Your task to perform on an android device: Add "dell xps" to the cart on newegg Image 0: 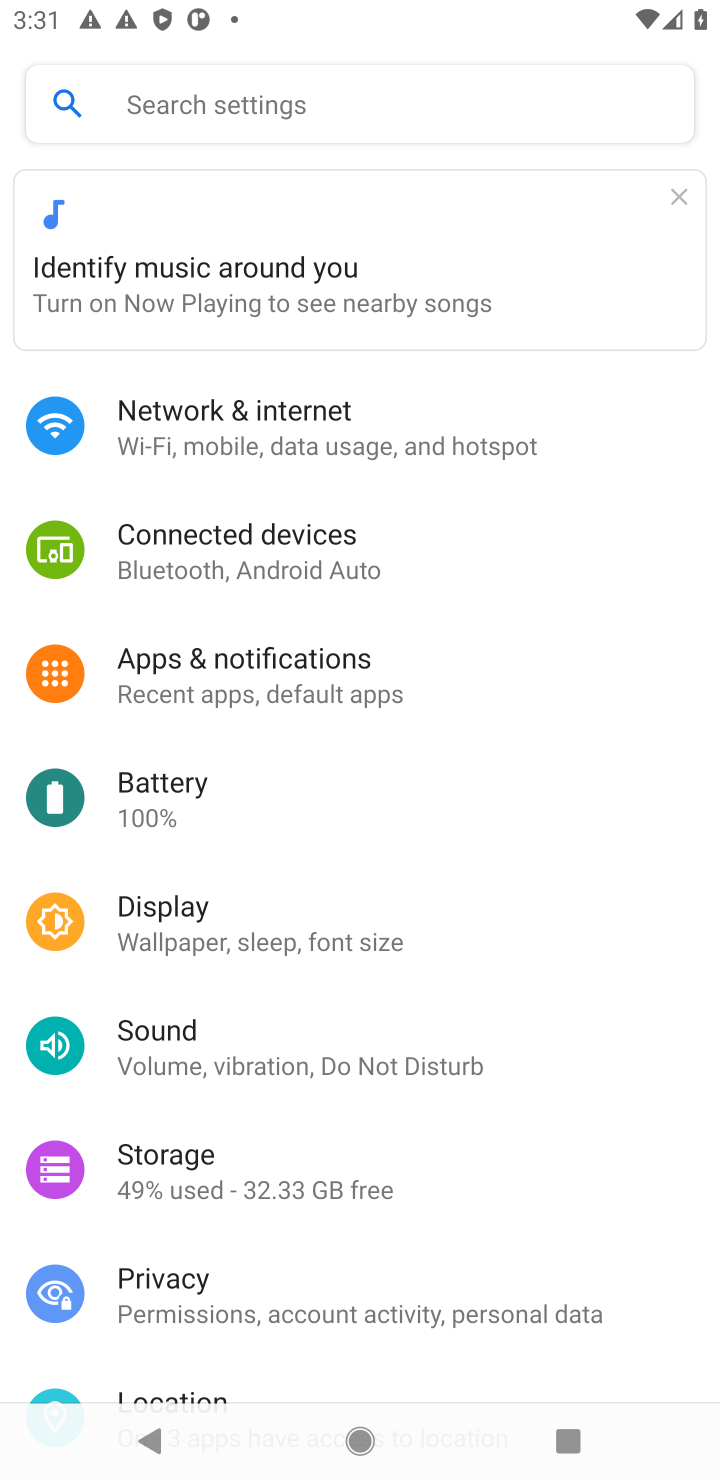
Step 0: press home button
Your task to perform on an android device: Add "dell xps" to the cart on newegg Image 1: 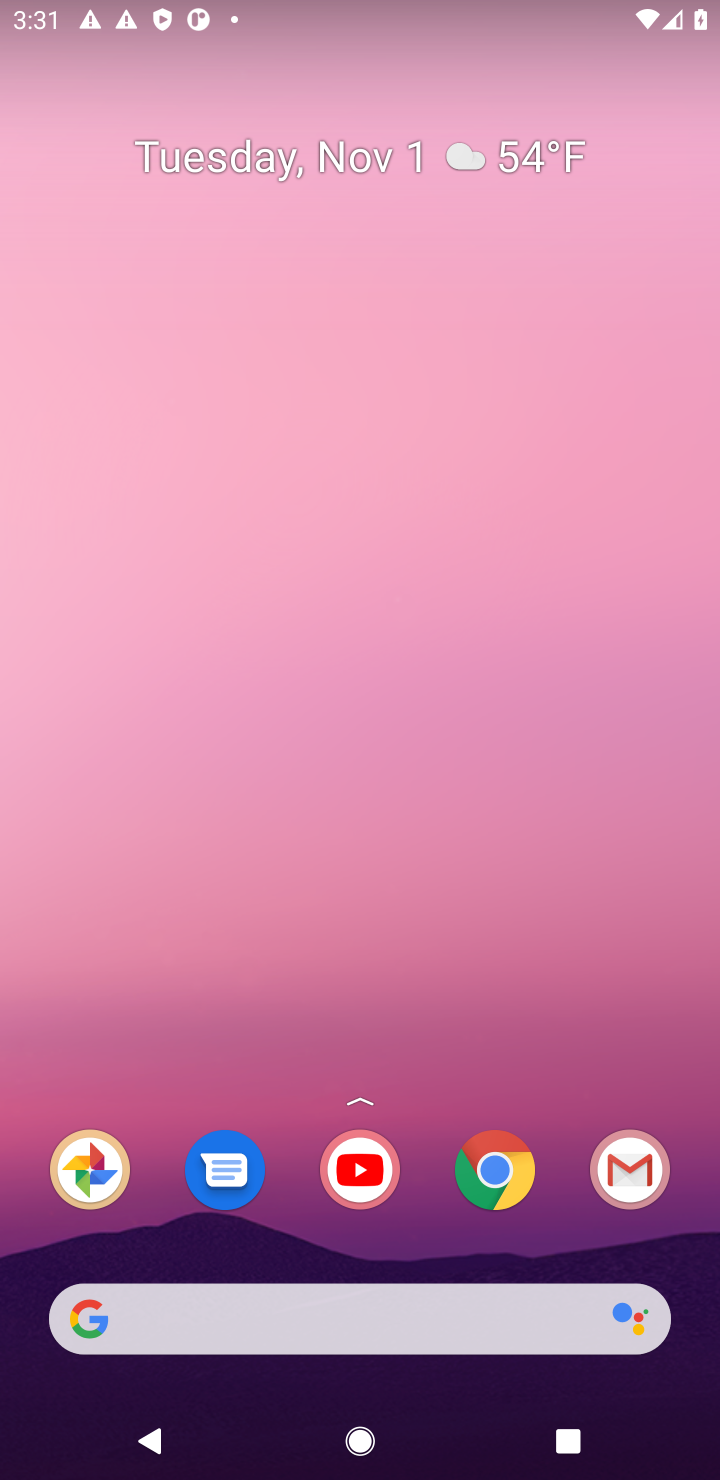
Step 1: drag from (473, 1418) to (420, 8)
Your task to perform on an android device: Add "dell xps" to the cart on newegg Image 2: 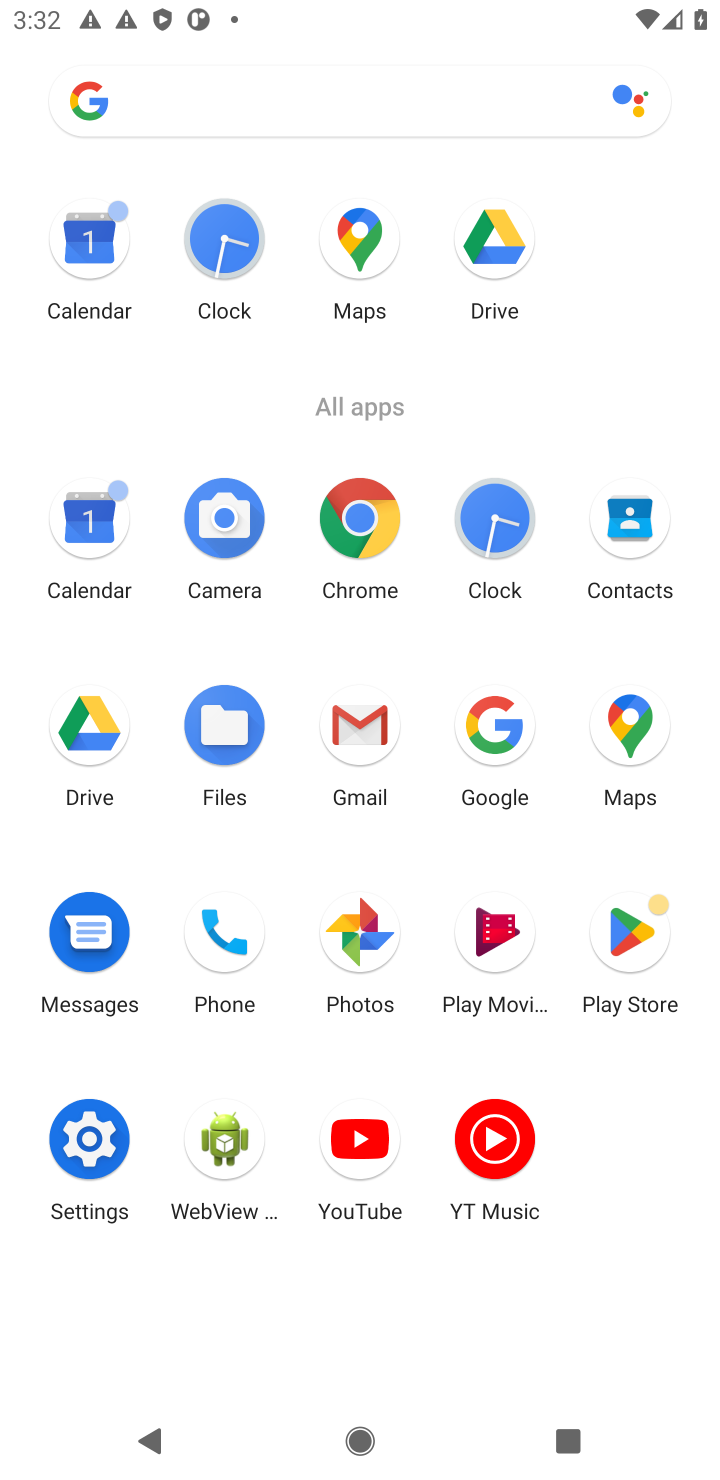
Step 2: click (364, 519)
Your task to perform on an android device: Add "dell xps" to the cart on newegg Image 3: 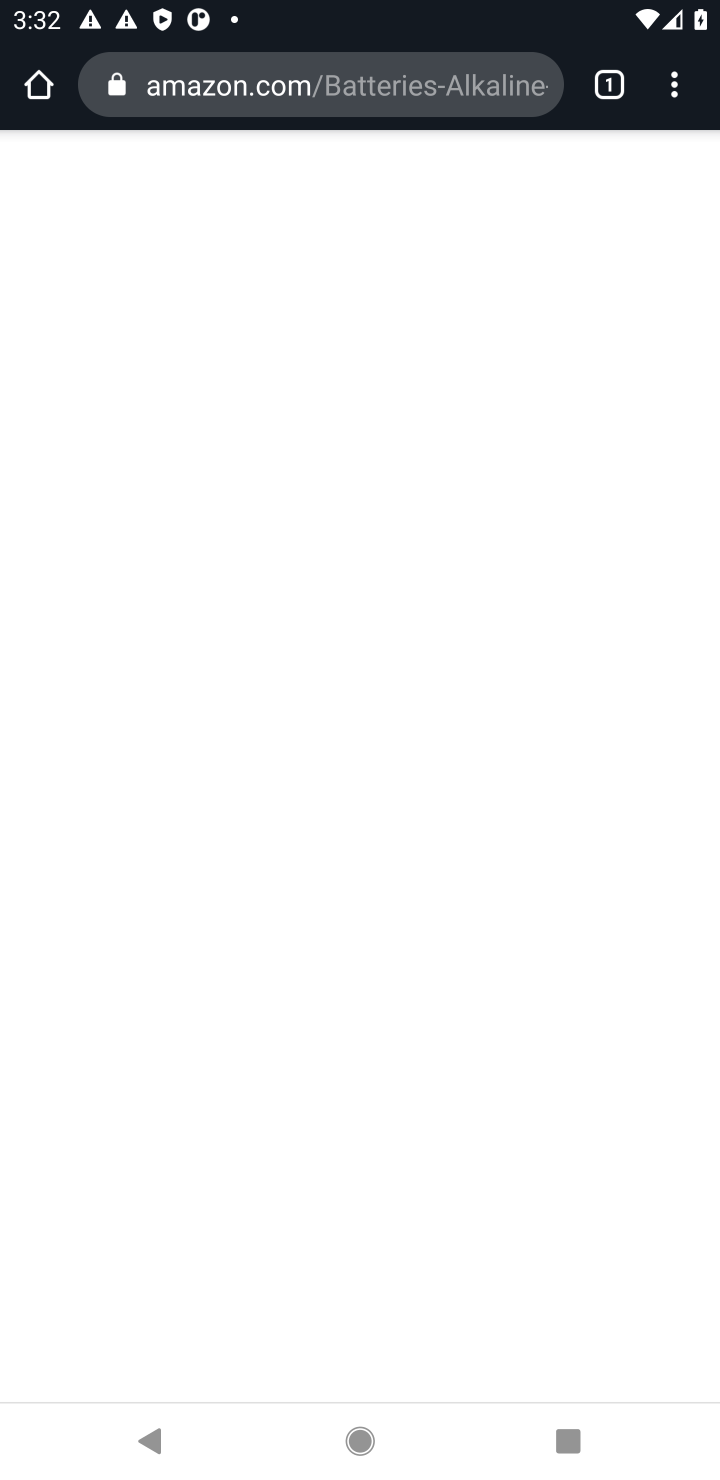
Step 3: drag from (558, 204) to (482, 979)
Your task to perform on an android device: Add "dell xps" to the cart on newegg Image 4: 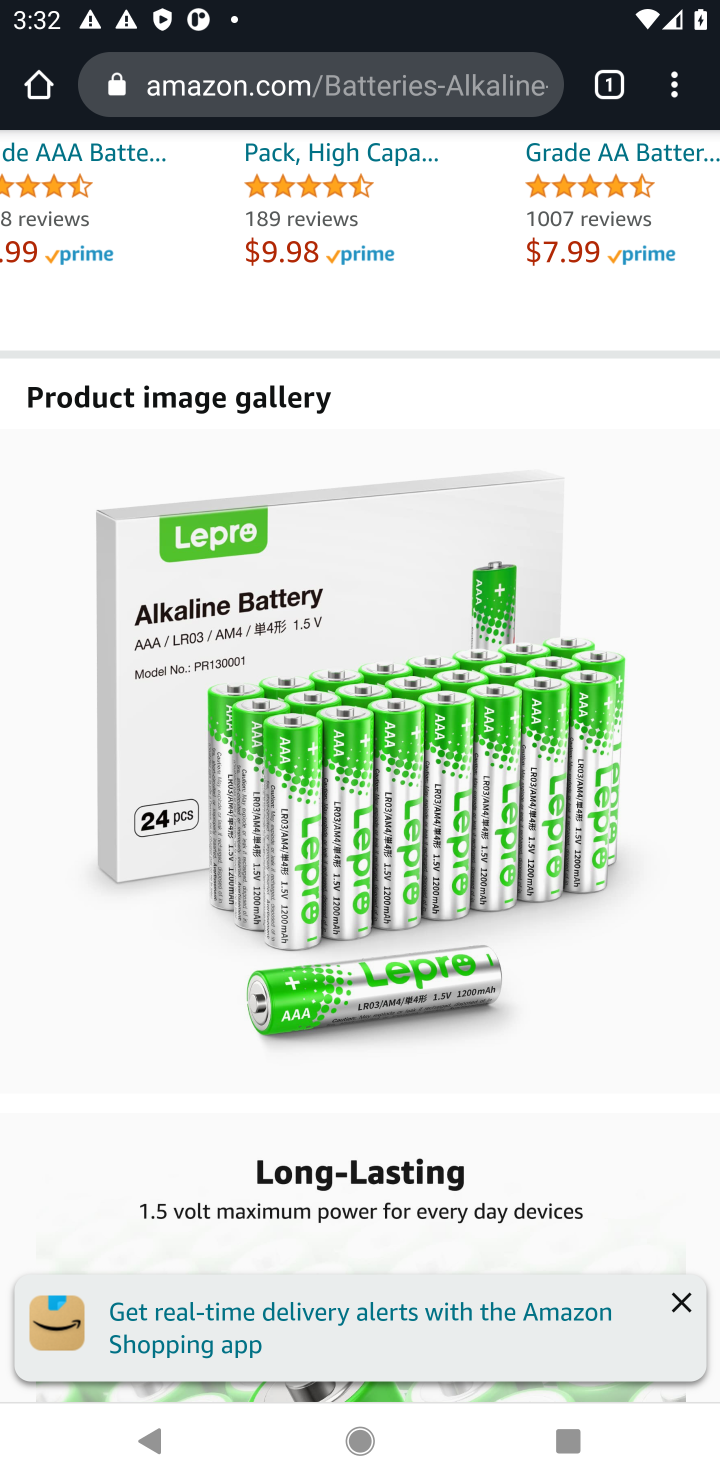
Step 4: click (261, 96)
Your task to perform on an android device: Add "dell xps" to the cart on newegg Image 5: 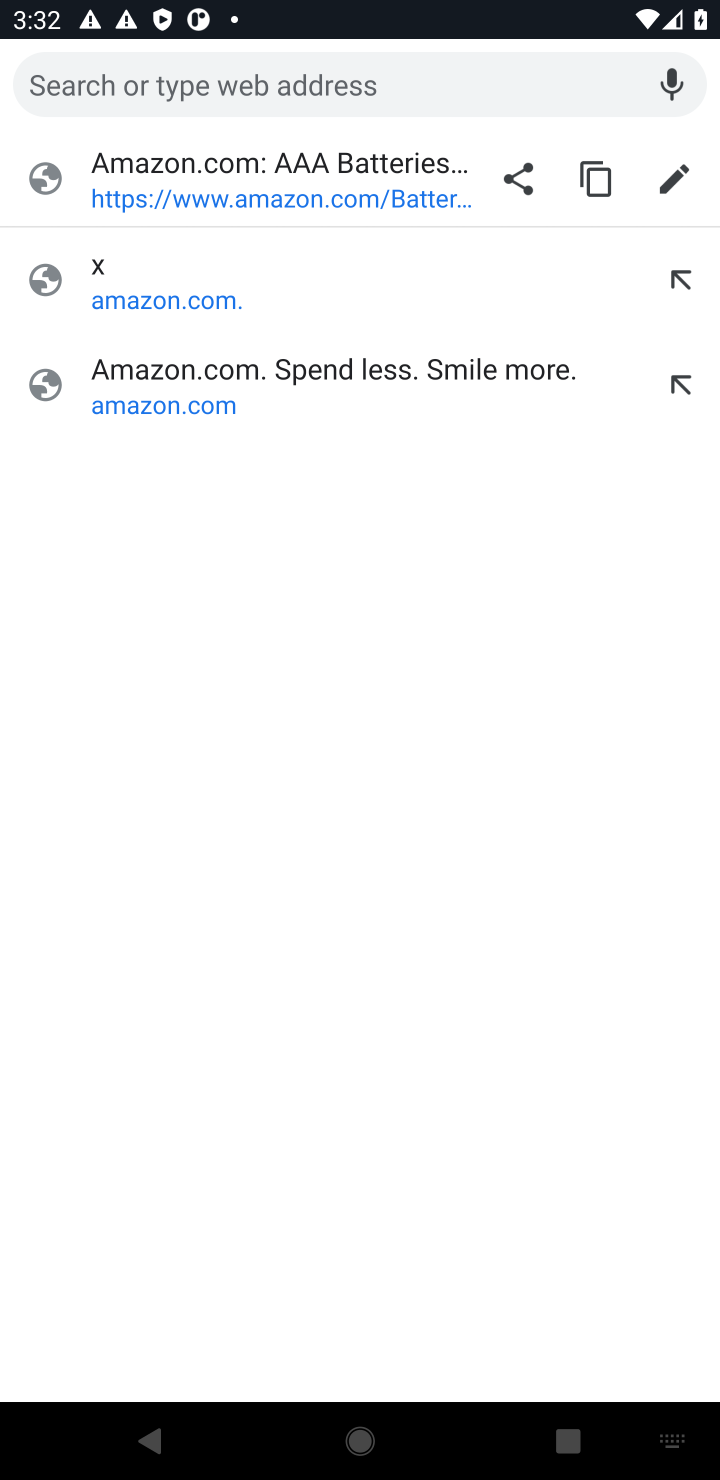
Step 5: type "newegg"
Your task to perform on an android device: Add "dell xps" to the cart on newegg Image 6: 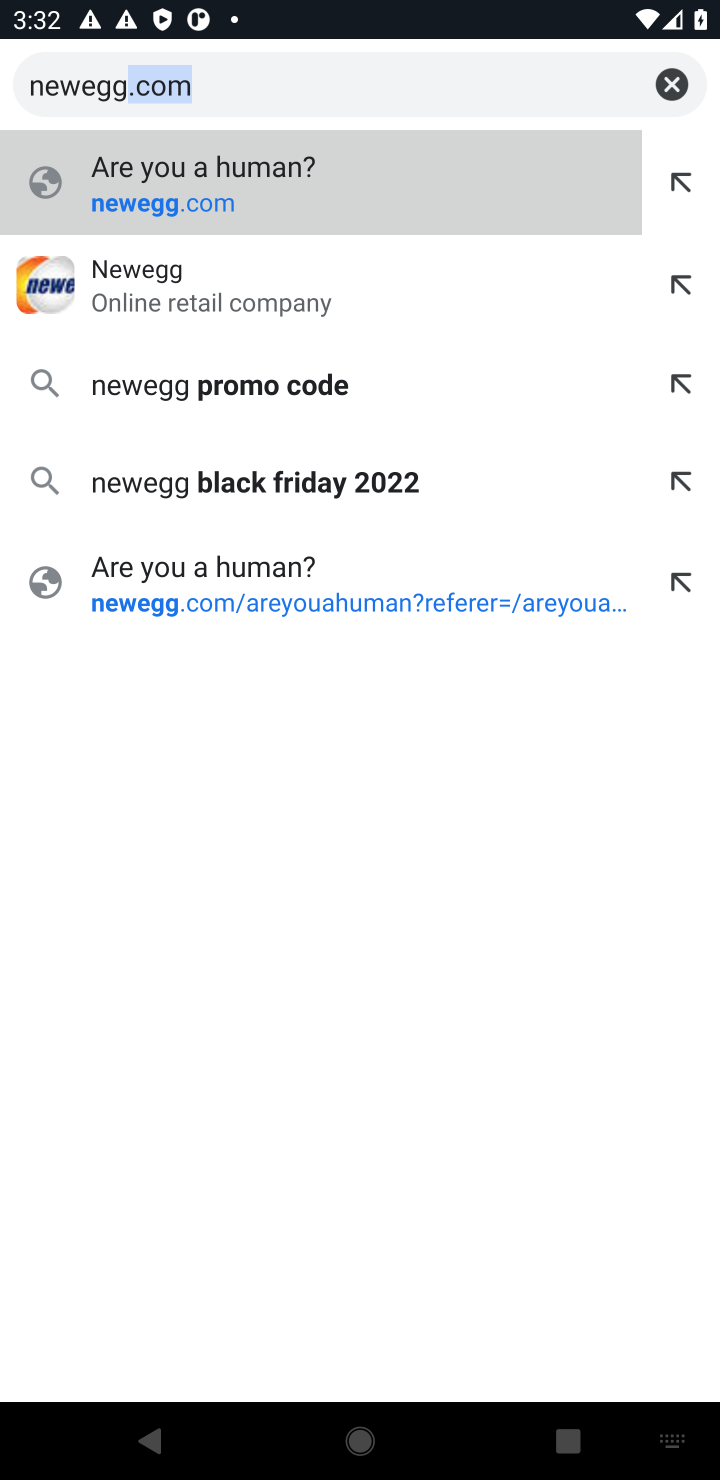
Step 6: click (202, 198)
Your task to perform on an android device: Add "dell xps" to the cart on newegg Image 7: 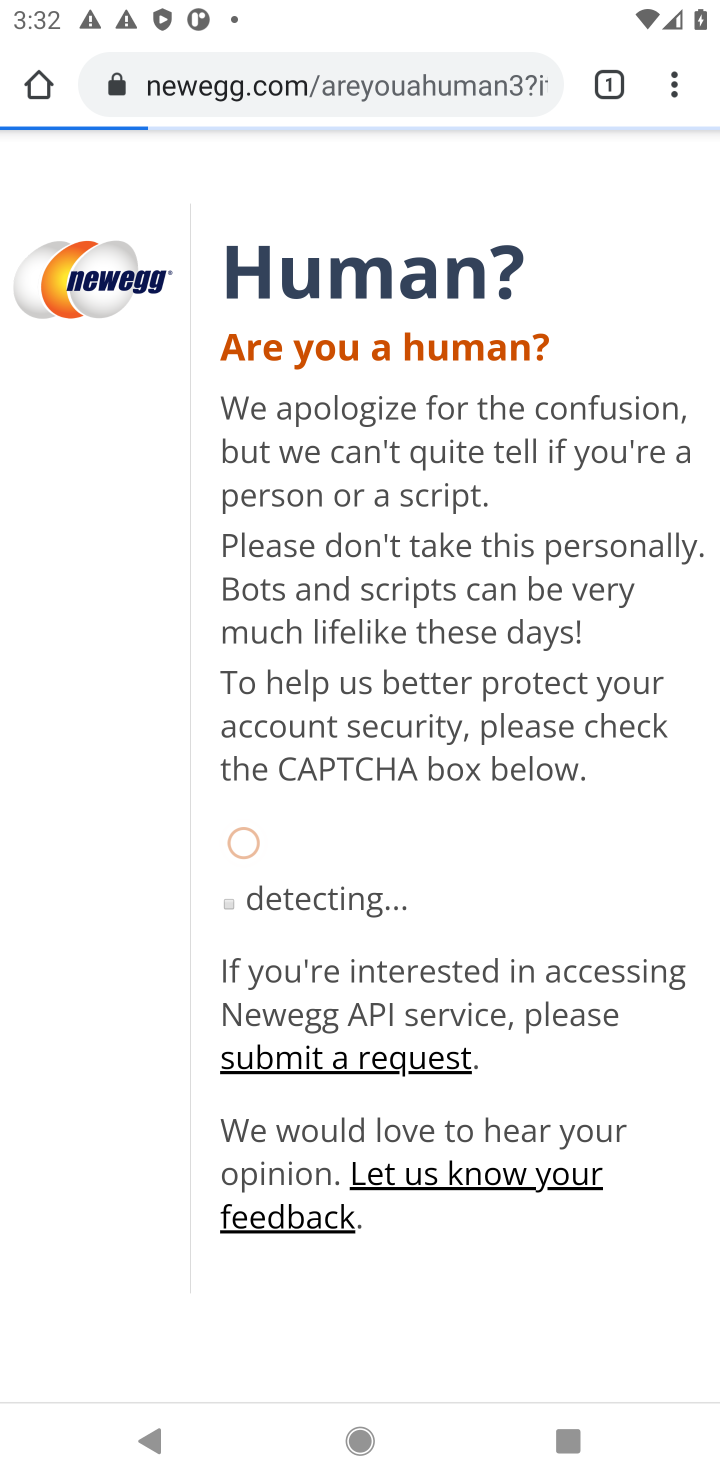
Step 7: task complete